Your task to perform on an android device: Go to Amazon Image 0: 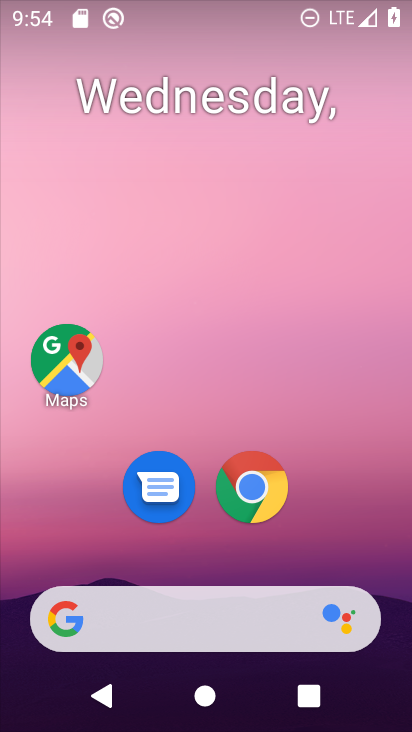
Step 0: click (254, 488)
Your task to perform on an android device: Go to Amazon Image 1: 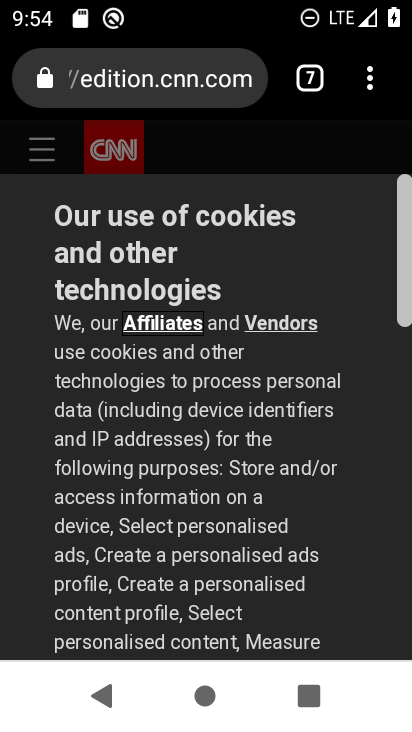
Step 1: click (371, 72)
Your task to perform on an android device: Go to Amazon Image 2: 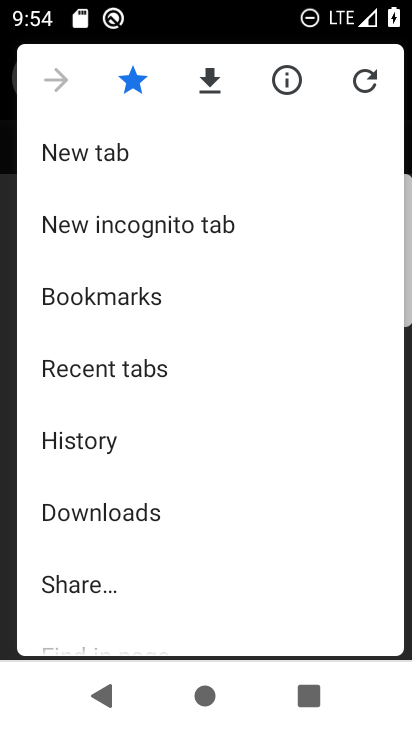
Step 2: click (104, 148)
Your task to perform on an android device: Go to Amazon Image 3: 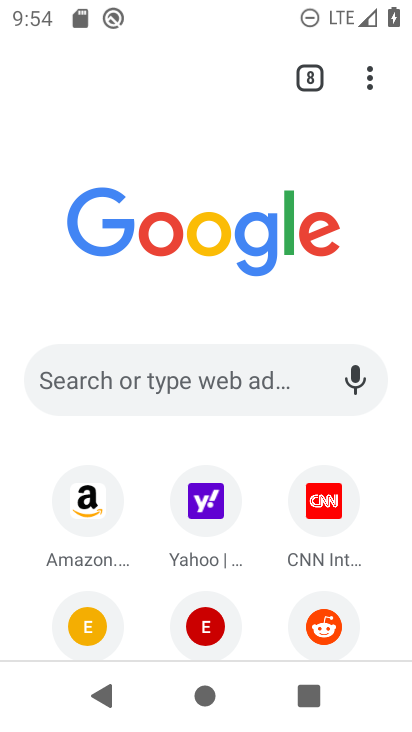
Step 3: click (83, 504)
Your task to perform on an android device: Go to Amazon Image 4: 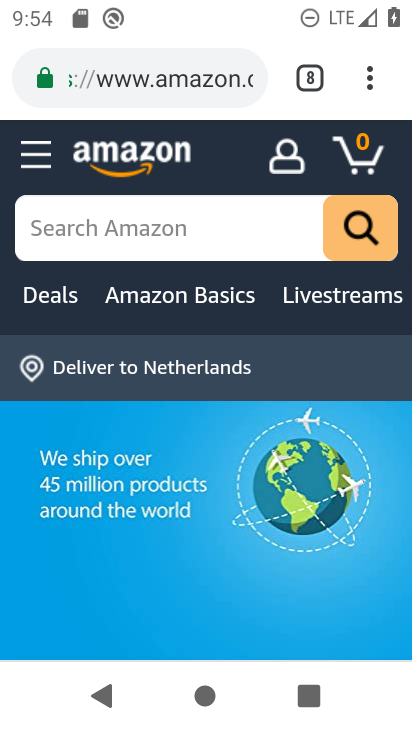
Step 4: task complete